Your task to perform on an android device: Open privacy settings Image 0: 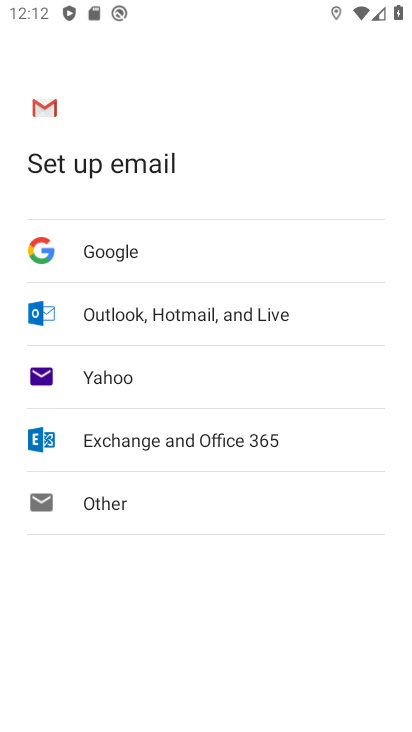
Step 0: press home button
Your task to perform on an android device: Open privacy settings Image 1: 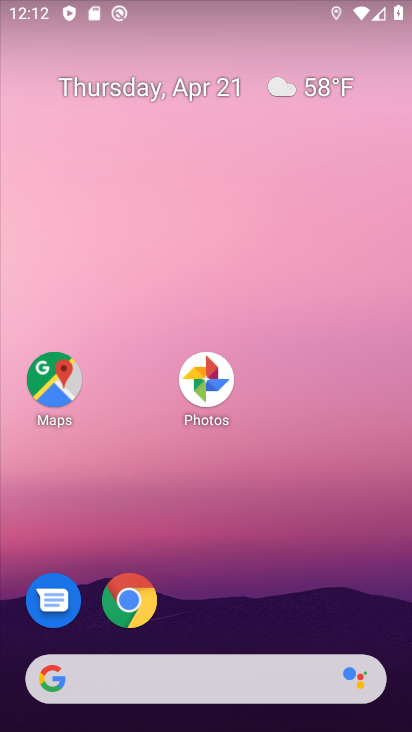
Step 1: drag from (206, 651) to (212, 2)
Your task to perform on an android device: Open privacy settings Image 2: 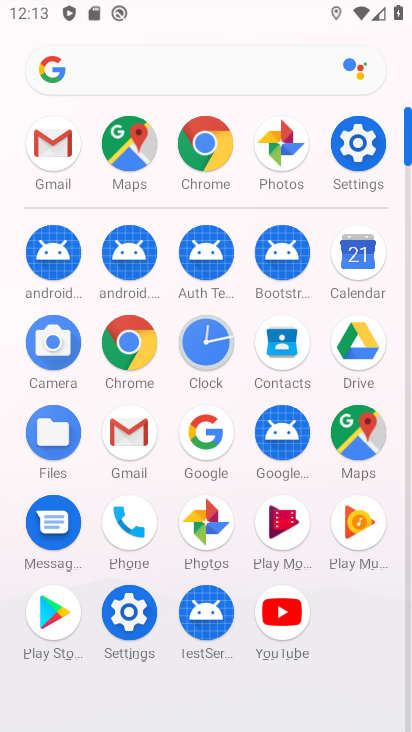
Step 2: click (353, 159)
Your task to perform on an android device: Open privacy settings Image 3: 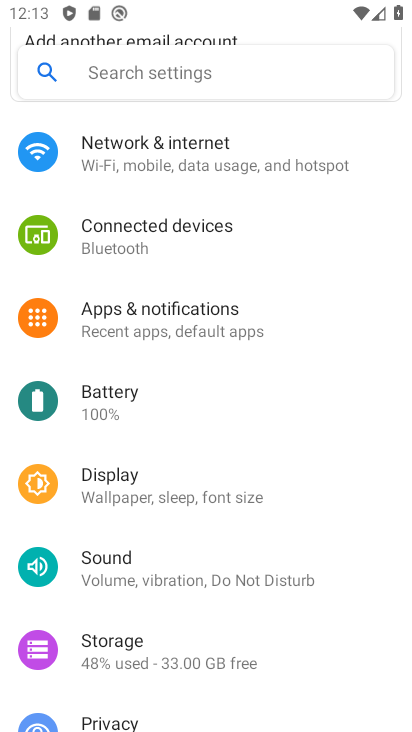
Step 3: click (132, 711)
Your task to perform on an android device: Open privacy settings Image 4: 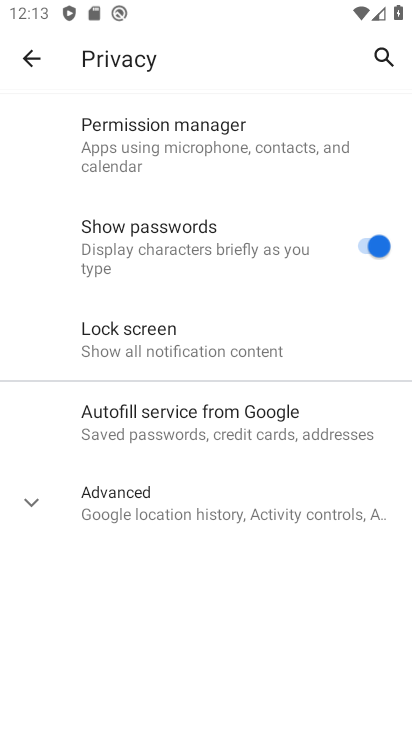
Step 4: task complete